Your task to perform on an android device: toggle location history Image 0: 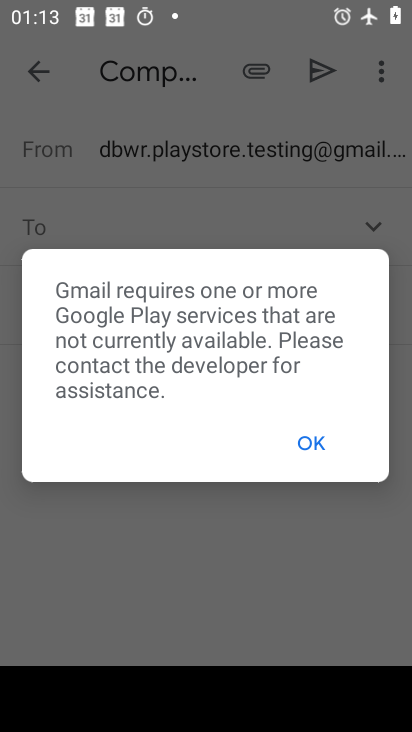
Step 0: press home button
Your task to perform on an android device: toggle location history Image 1: 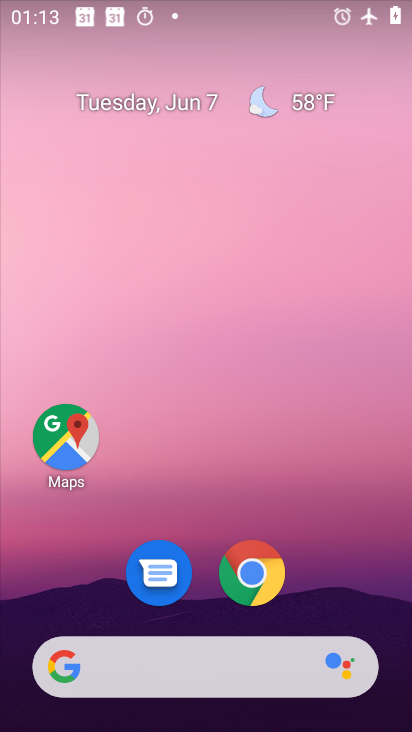
Step 1: drag from (344, 590) to (393, 49)
Your task to perform on an android device: toggle location history Image 2: 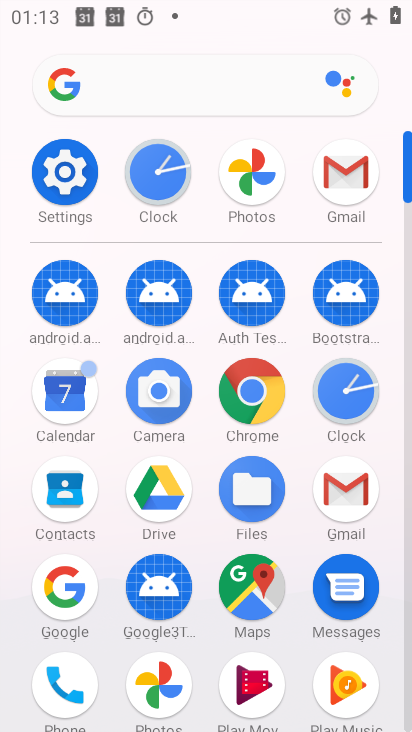
Step 2: click (253, 584)
Your task to perform on an android device: toggle location history Image 3: 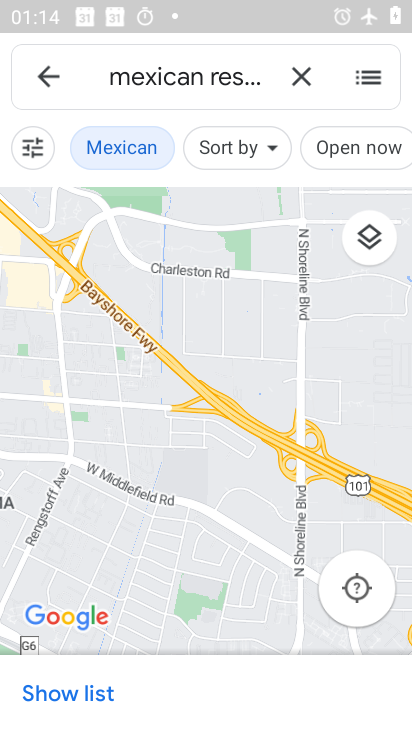
Step 3: click (42, 77)
Your task to perform on an android device: toggle location history Image 4: 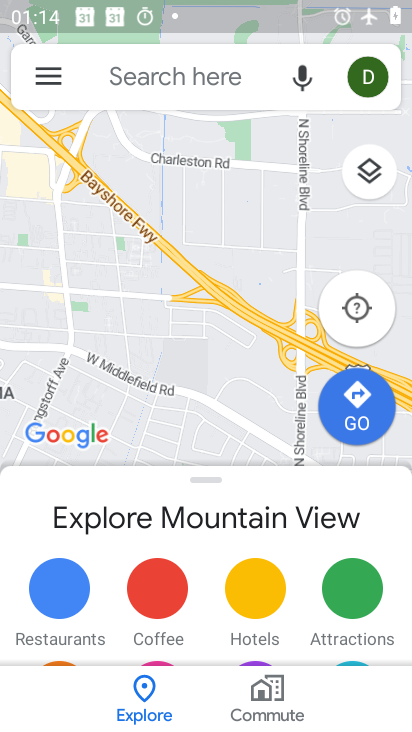
Step 4: click (50, 79)
Your task to perform on an android device: toggle location history Image 5: 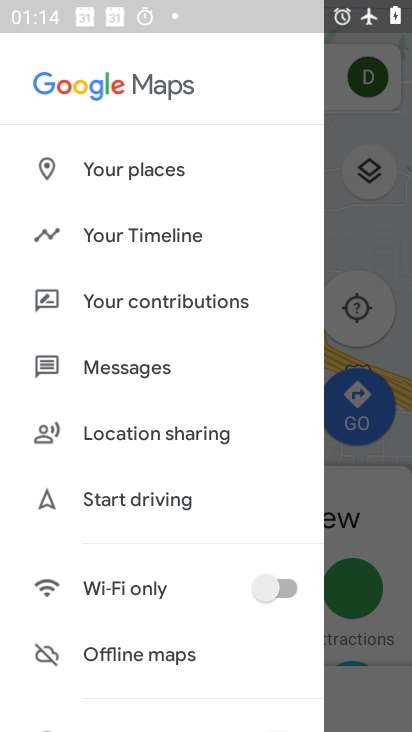
Step 5: click (118, 234)
Your task to perform on an android device: toggle location history Image 6: 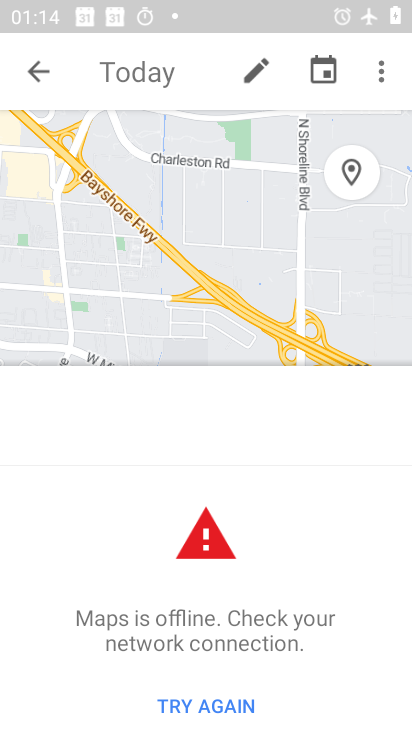
Step 6: drag from (305, 8) to (189, 577)
Your task to perform on an android device: toggle location history Image 7: 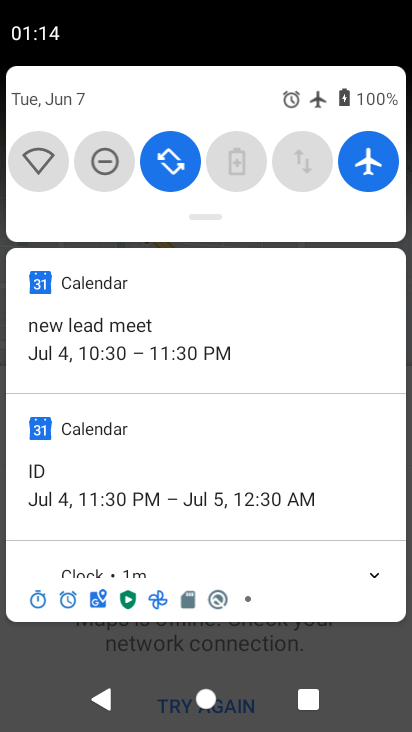
Step 7: click (366, 163)
Your task to perform on an android device: toggle location history Image 8: 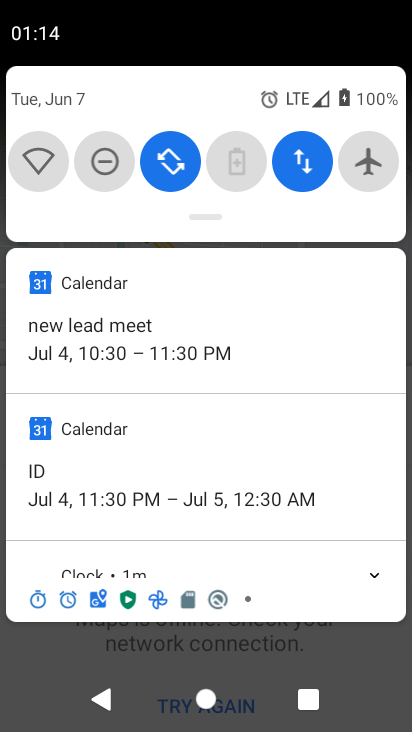
Step 8: click (355, 672)
Your task to perform on an android device: toggle location history Image 9: 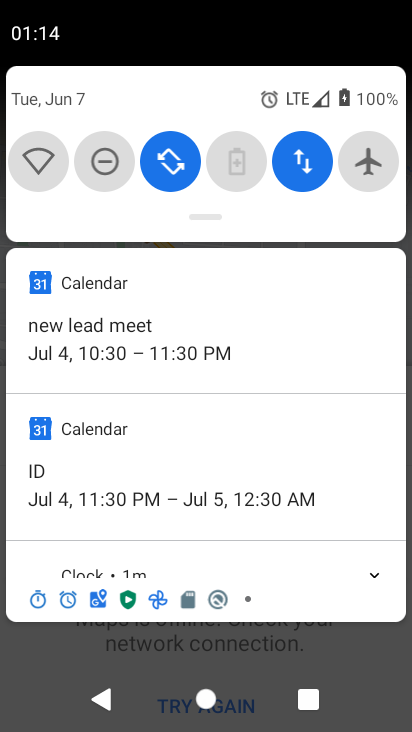
Step 9: click (339, 632)
Your task to perform on an android device: toggle location history Image 10: 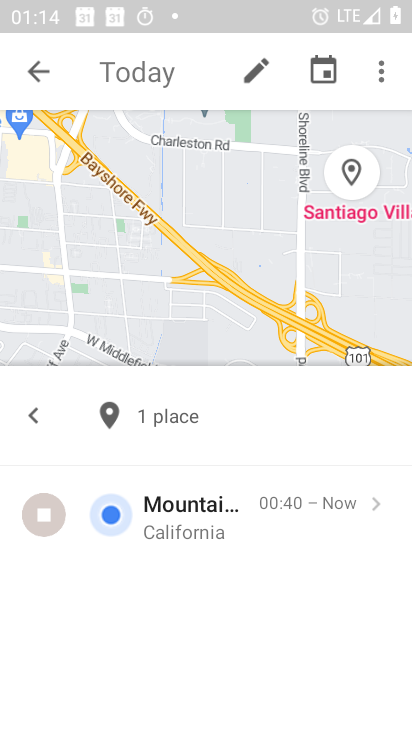
Step 10: click (371, 76)
Your task to perform on an android device: toggle location history Image 11: 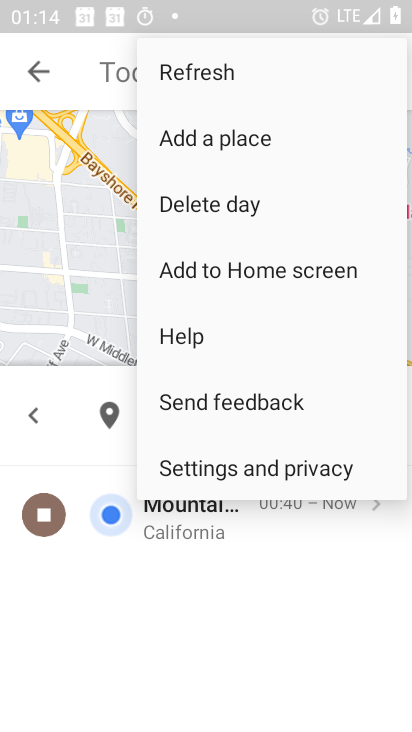
Step 11: click (270, 461)
Your task to perform on an android device: toggle location history Image 12: 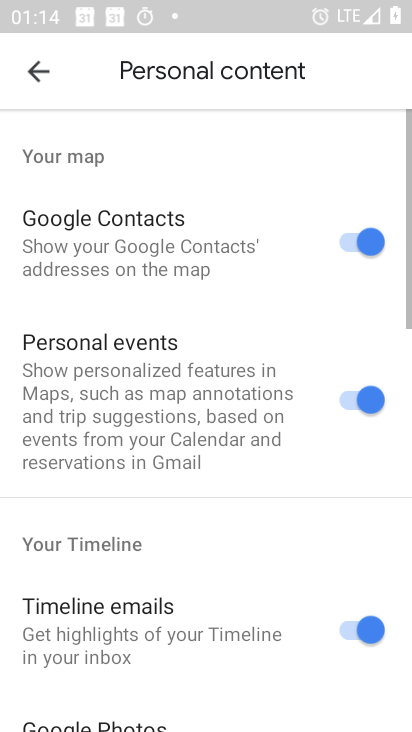
Step 12: drag from (138, 636) to (183, 174)
Your task to perform on an android device: toggle location history Image 13: 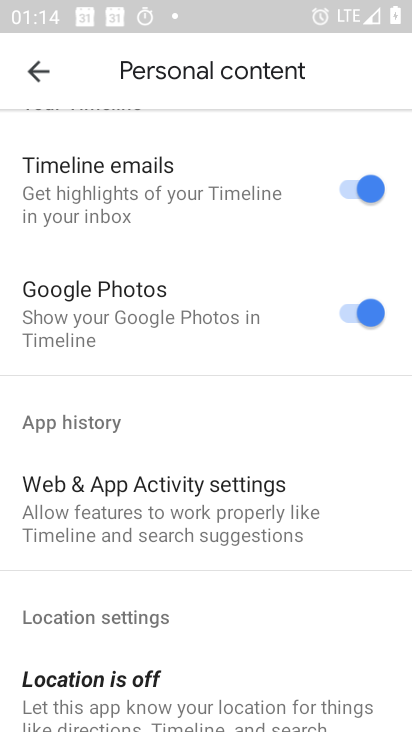
Step 13: drag from (175, 583) to (214, 298)
Your task to perform on an android device: toggle location history Image 14: 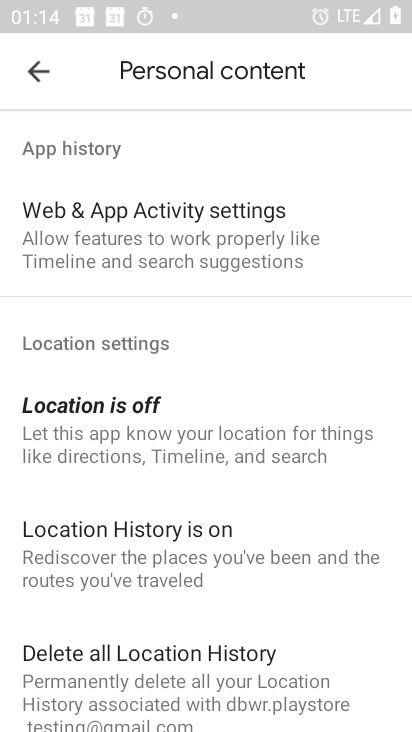
Step 14: click (80, 551)
Your task to perform on an android device: toggle location history Image 15: 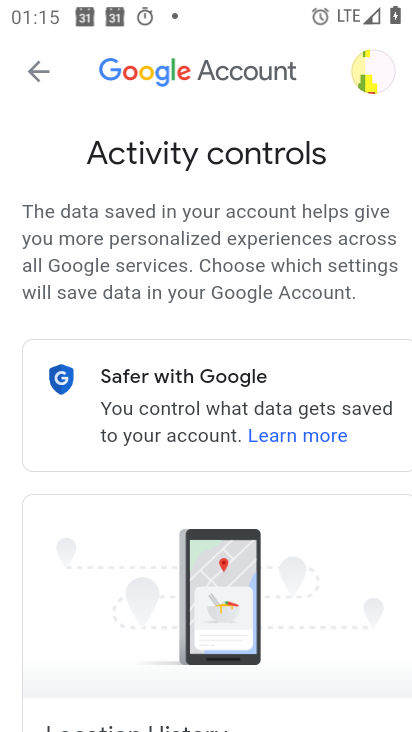
Step 15: drag from (301, 678) to (317, 75)
Your task to perform on an android device: toggle location history Image 16: 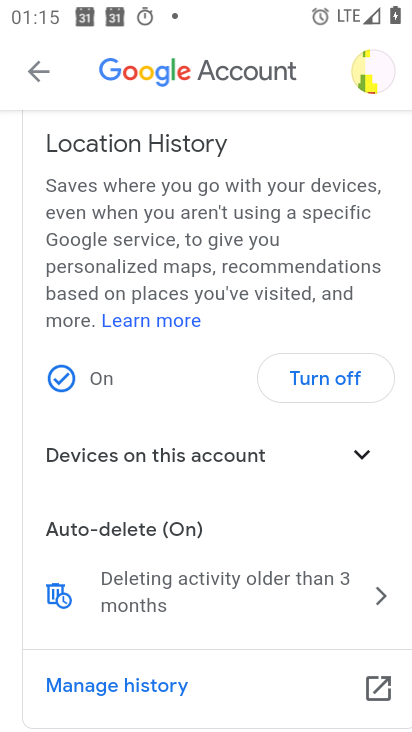
Step 16: drag from (237, 665) to (270, 88)
Your task to perform on an android device: toggle location history Image 17: 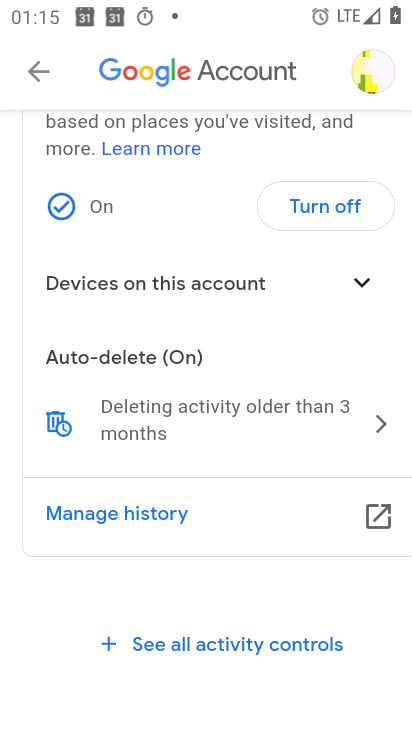
Step 17: drag from (231, 606) to (265, 111)
Your task to perform on an android device: toggle location history Image 18: 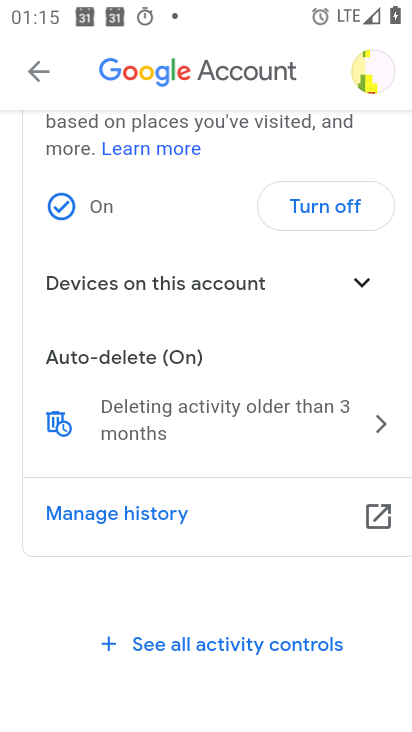
Step 18: click (329, 207)
Your task to perform on an android device: toggle location history Image 19: 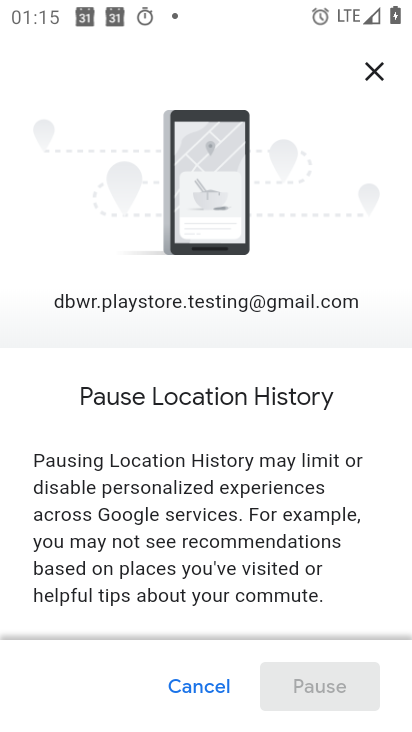
Step 19: drag from (247, 554) to (286, 81)
Your task to perform on an android device: toggle location history Image 20: 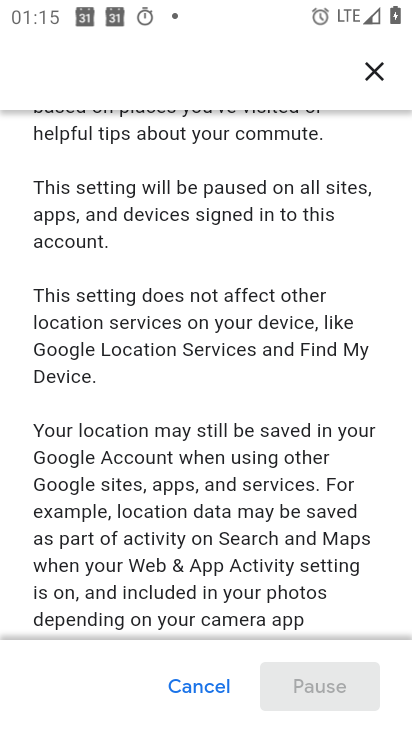
Step 20: drag from (235, 582) to (276, 141)
Your task to perform on an android device: toggle location history Image 21: 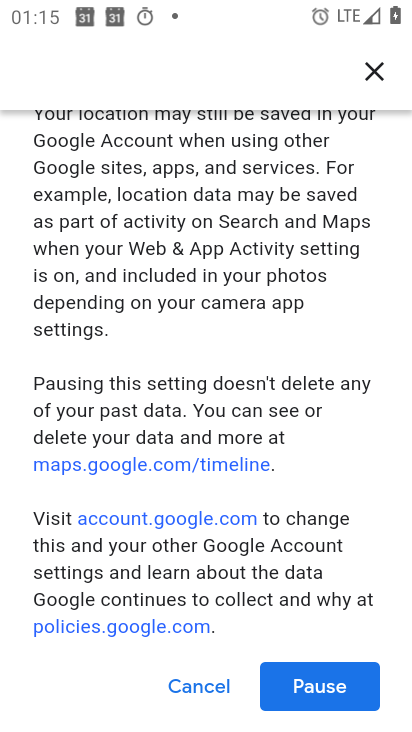
Step 21: click (311, 684)
Your task to perform on an android device: toggle location history Image 22: 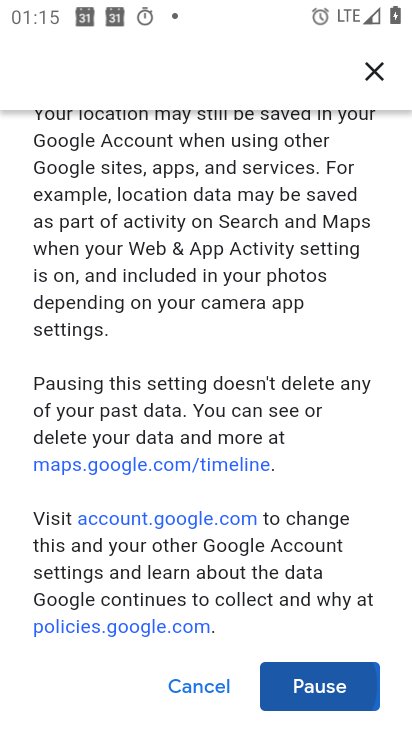
Step 22: click (311, 684)
Your task to perform on an android device: toggle location history Image 23: 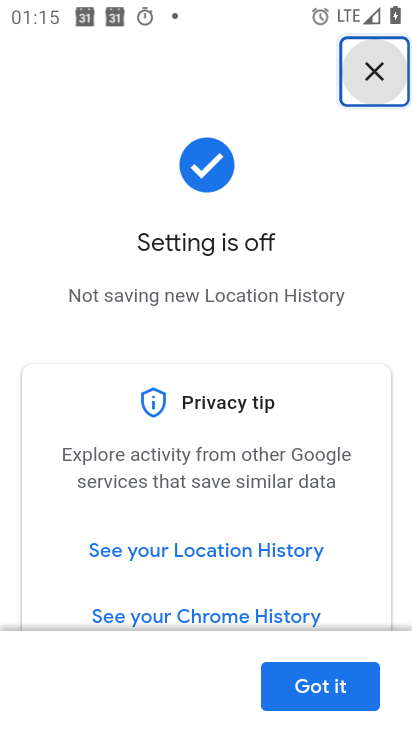
Step 23: drag from (282, 568) to (352, 170)
Your task to perform on an android device: toggle location history Image 24: 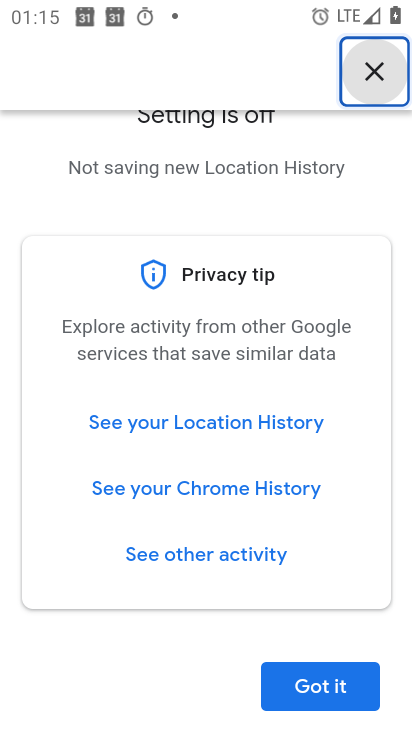
Step 24: click (326, 684)
Your task to perform on an android device: toggle location history Image 25: 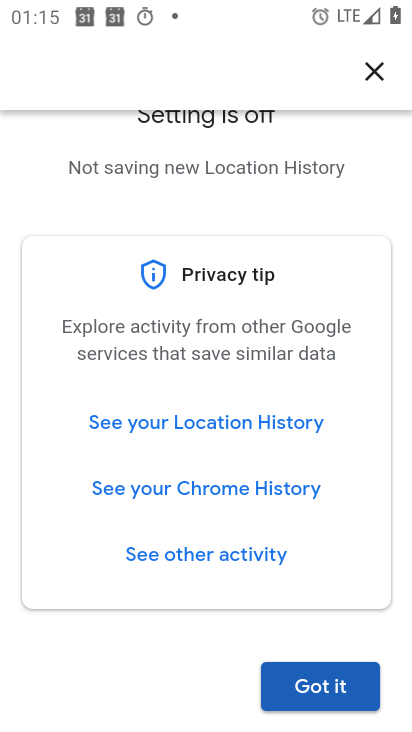
Step 25: click (304, 685)
Your task to perform on an android device: toggle location history Image 26: 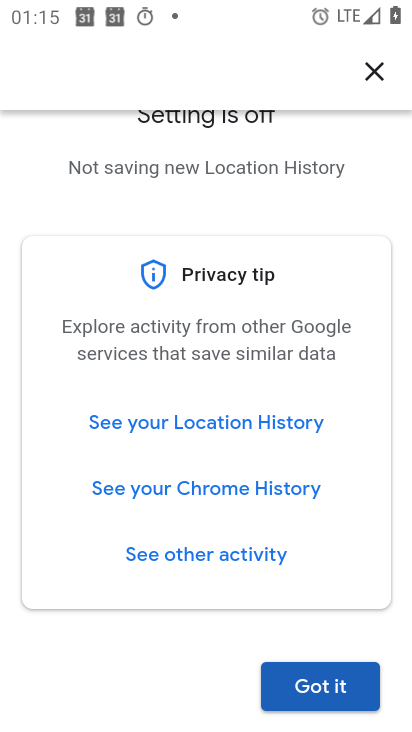
Step 26: click (318, 677)
Your task to perform on an android device: toggle location history Image 27: 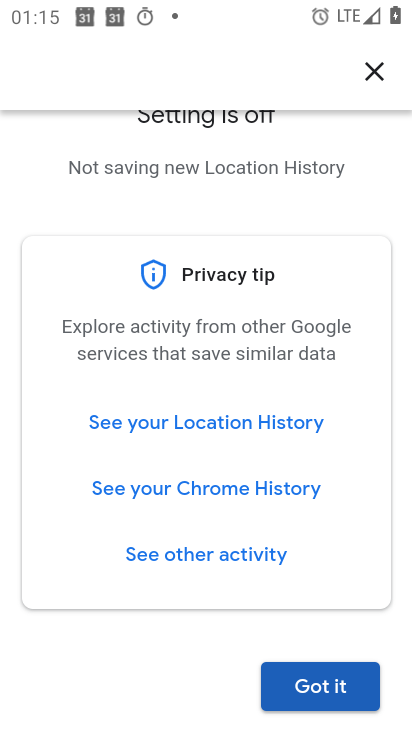
Step 27: click (287, 704)
Your task to perform on an android device: toggle location history Image 28: 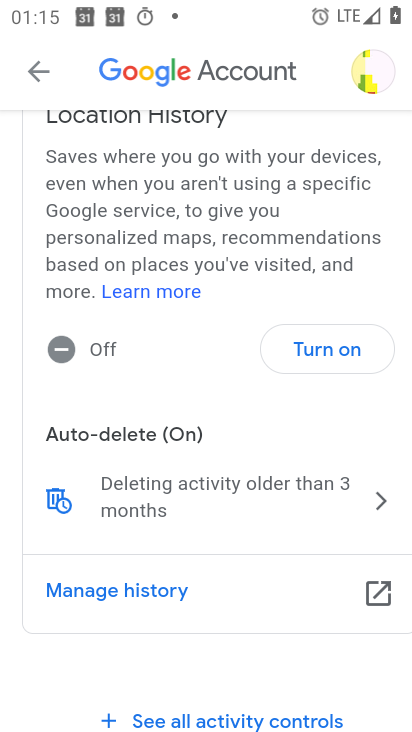
Step 28: task complete